Your task to perform on an android device: Open Google Chrome and click the shortcut for Amazon.com Image 0: 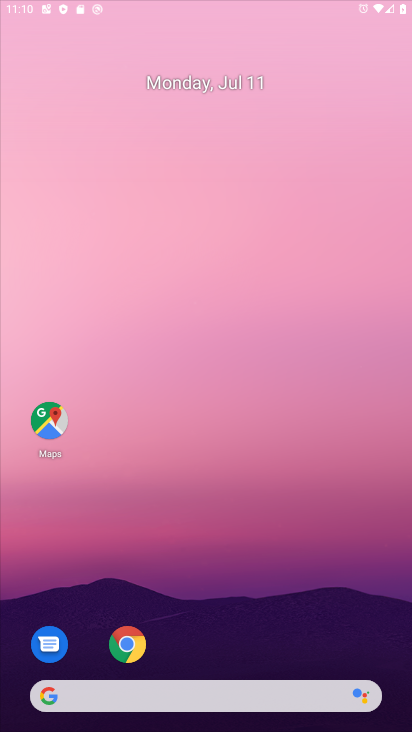
Step 0: press home button
Your task to perform on an android device: Open Google Chrome and click the shortcut for Amazon.com Image 1: 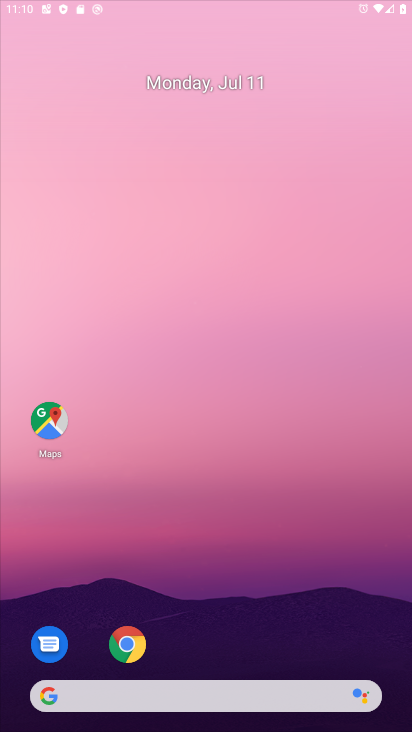
Step 1: drag from (214, 652) to (207, 57)
Your task to perform on an android device: Open Google Chrome and click the shortcut for Amazon.com Image 2: 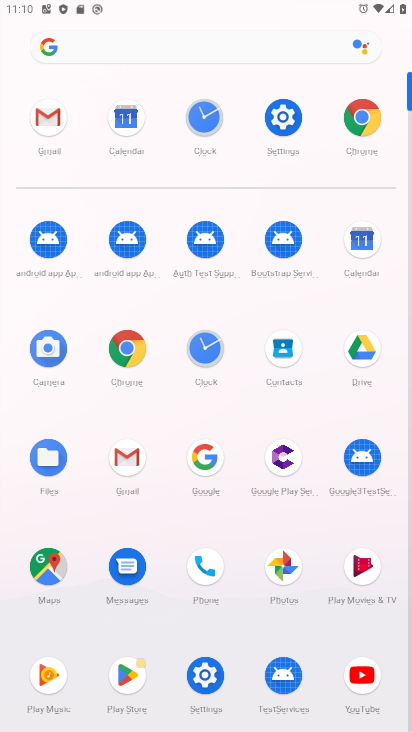
Step 2: click (356, 115)
Your task to perform on an android device: Open Google Chrome and click the shortcut for Amazon.com Image 3: 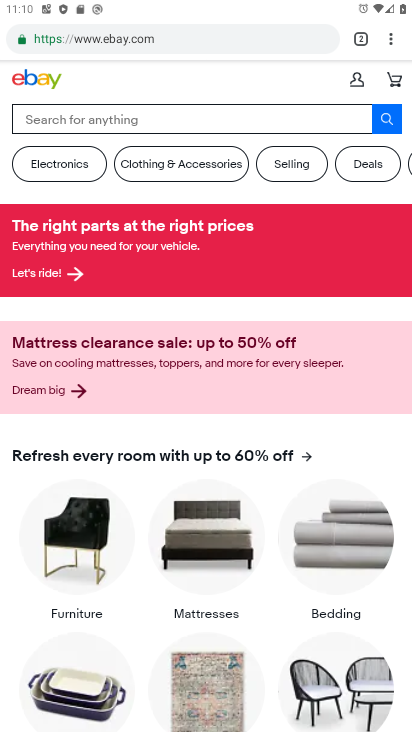
Step 3: click (363, 37)
Your task to perform on an android device: Open Google Chrome and click the shortcut for Amazon.com Image 4: 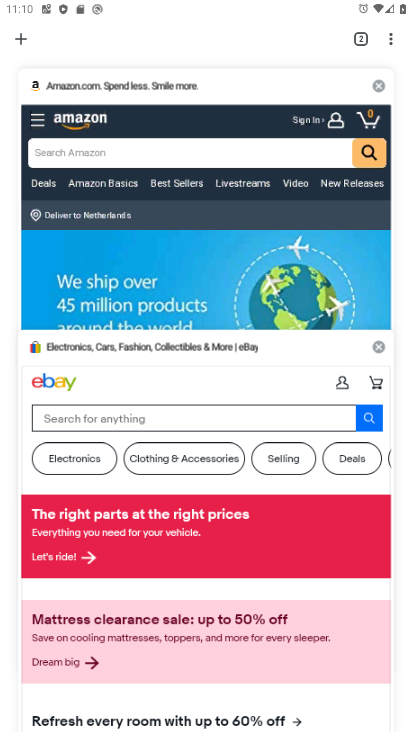
Step 4: click (87, 168)
Your task to perform on an android device: Open Google Chrome and click the shortcut for Amazon.com Image 5: 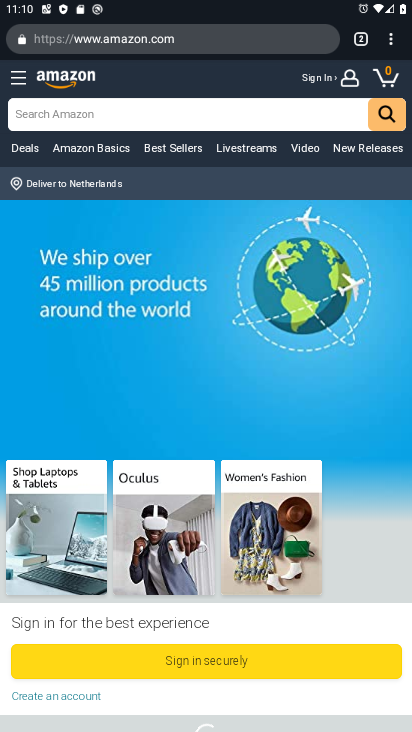
Step 5: task complete